Your task to perform on an android device: Open the map Image 0: 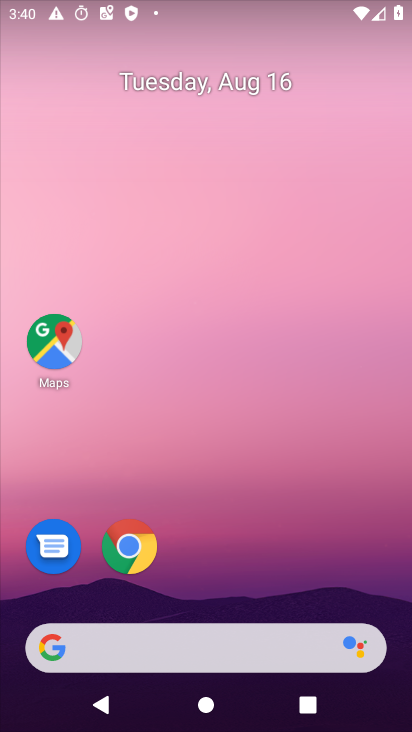
Step 0: press home button
Your task to perform on an android device: Open the map Image 1: 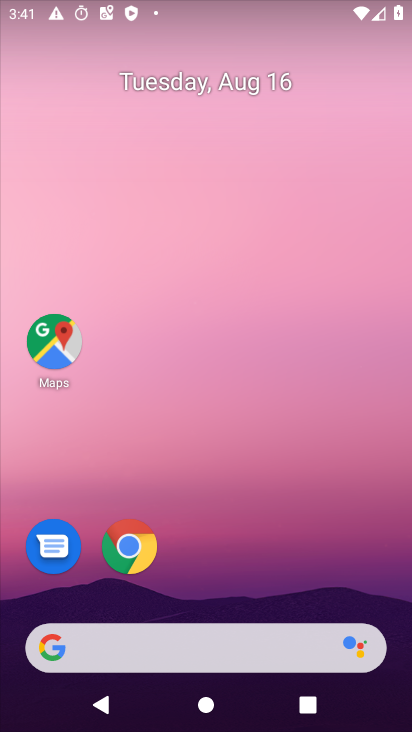
Step 1: drag from (349, 581) to (381, 93)
Your task to perform on an android device: Open the map Image 2: 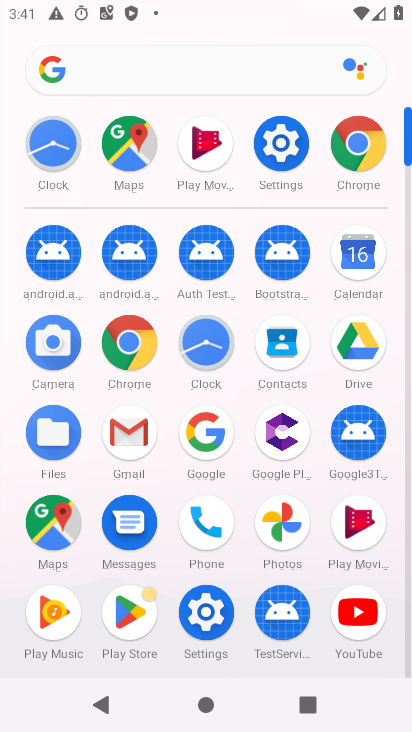
Step 2: click (52, 519)
Your task to perform on an android device: Open the map Image 3: 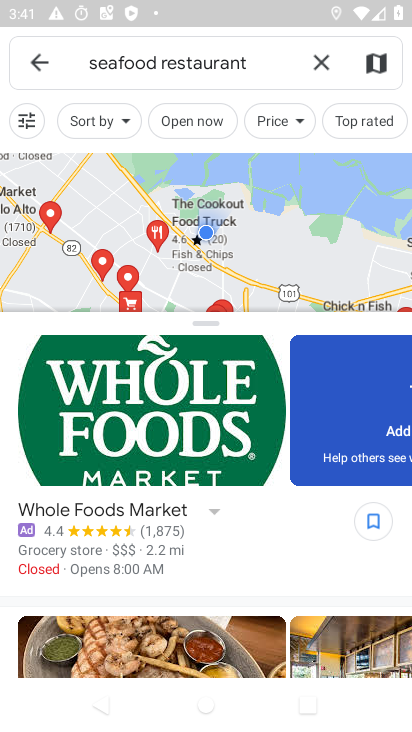
Step 3: task complete